Your task to perform on an android device: set default search engine in the chrome app Image 0: 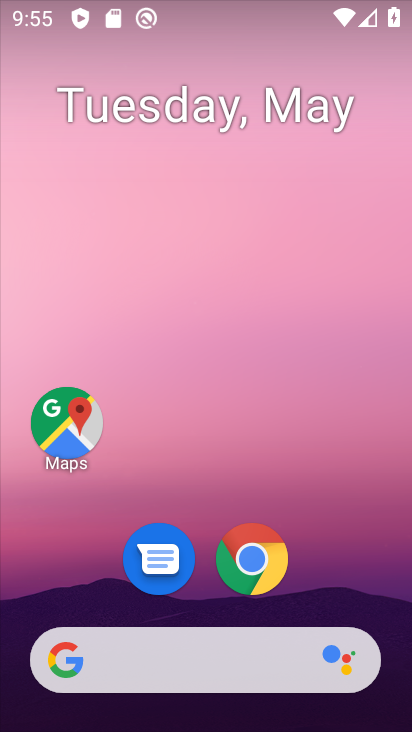
Step 0: drag from (271, 668) to (149, 81)
Your task to perform on an android device: set default search engine in the chrome app Image 1: 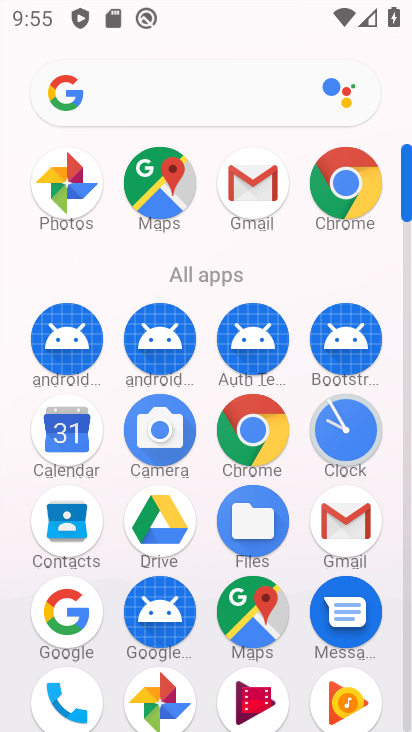
Step 1: click (243, 423)
Your task to perform on an android device: set default search engine in the chrome app Image 2: 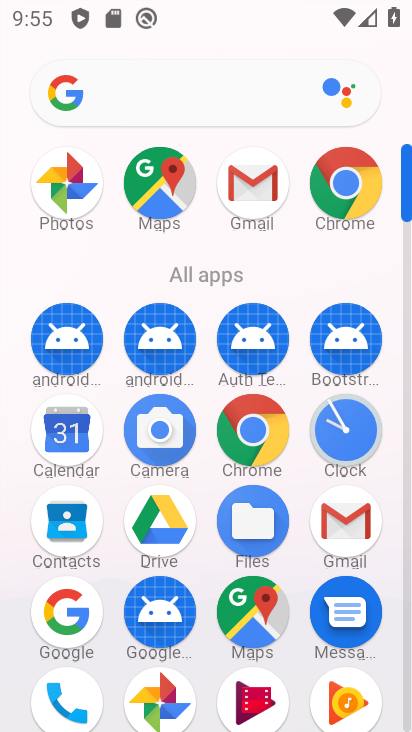
Step 2: click (242, 423)
Your task to perform on an android device: set default search engine in the chrome app Image 3: 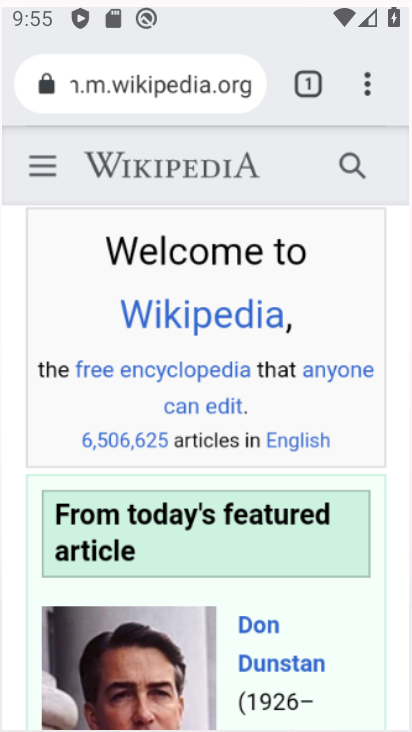
Step 3: click (245, 424)
Your task to perform on an android device: set default search engine in the chrome app Image 4: 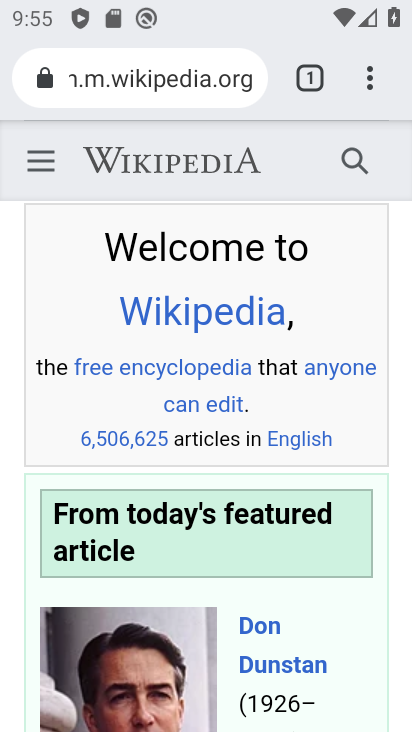
Step 4: drag from (368, 77) to (105, 158)
Your task to perform on an android device: set default search engine in the chrome app Image 5: 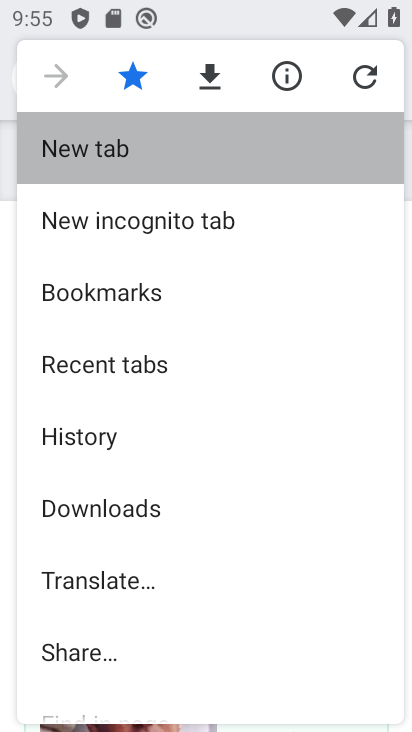
Step 5: click (104, 159)
Your task to perform on an android device: set default search engine in the chrome app Image 6: 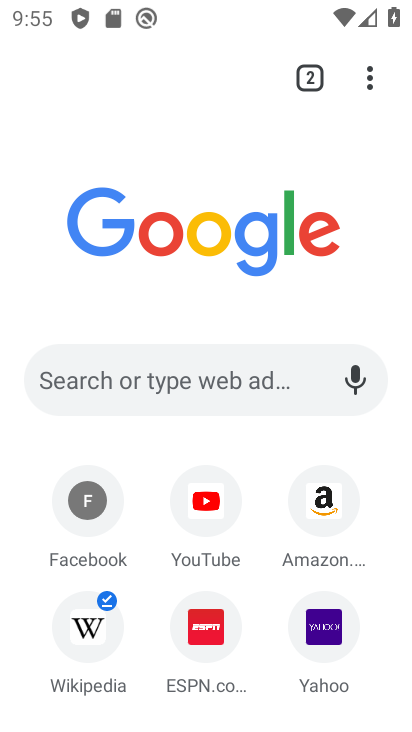
Step 6: drag from (364, 82) to (101, 619)
Your task to perform on an android device: set default search engine in the chrome app Image 7: 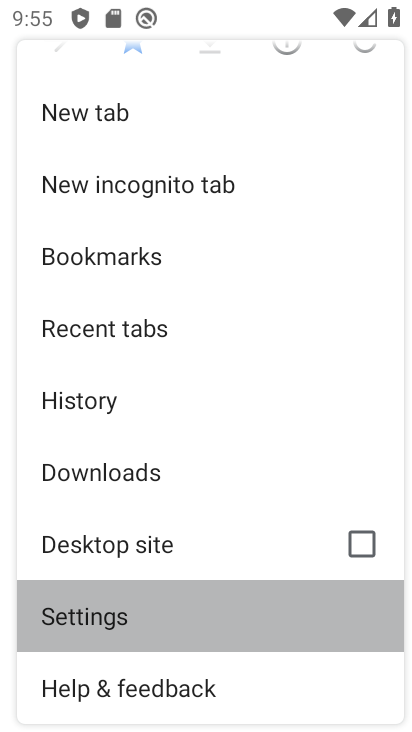
Step 7: click (101, 619)
Your task to perform on an android device: set default search engine in the chrome app Image 8: 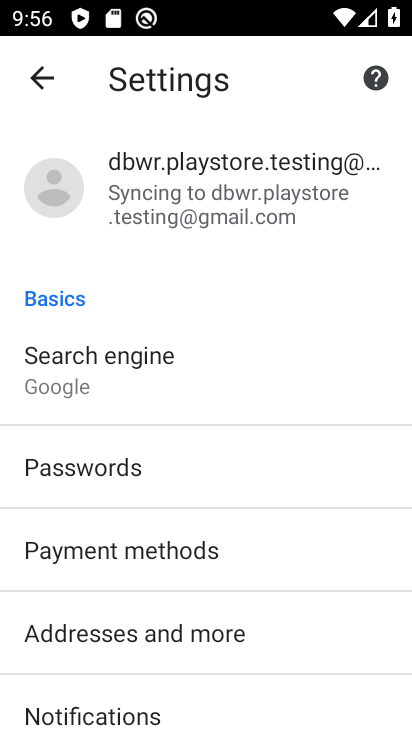
Step 8: click (60, 358)
Your task to perform on an android device: set default search engine in the chrome app Image 9: 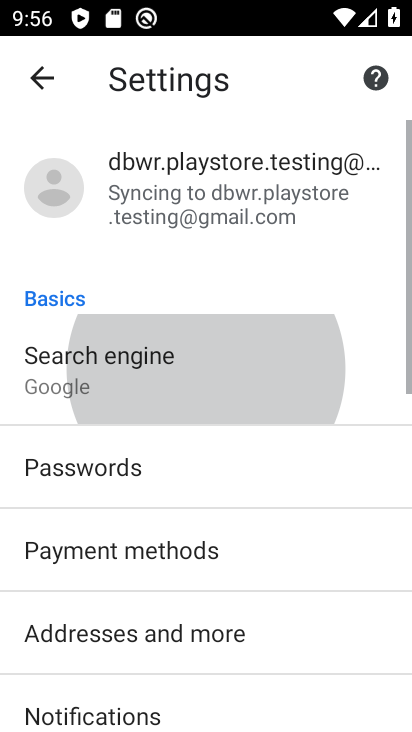
Step 9: click (60, 358)
Your task to perform on an android device: set default search engine in the chrome app Image 10: 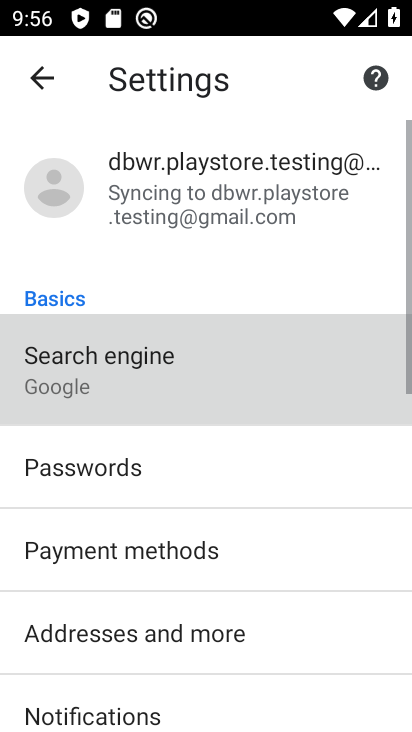
Step 10: task complete